Your task to perform on an android device: Open the stopwatch Image 0: 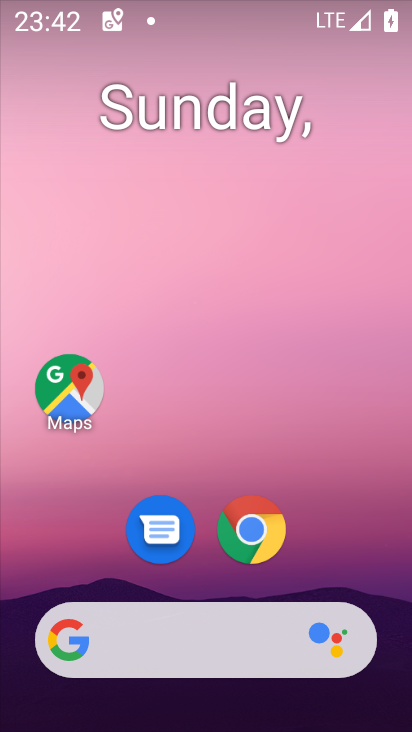
Step 0: drag from (350, 555) to (235, 180)
Your task to perform on an android device: Open the stopwatch Image 1: 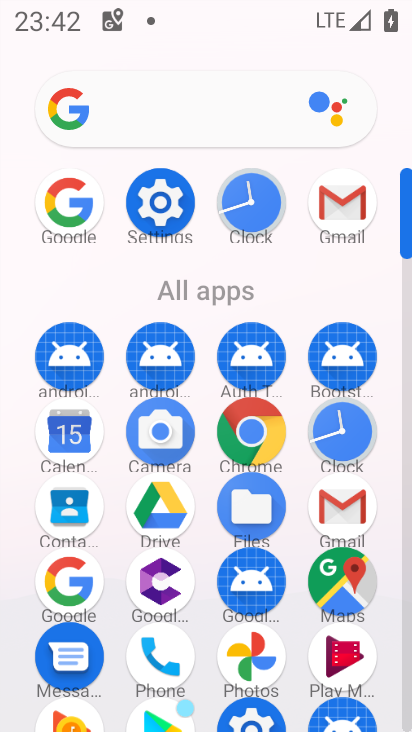
Step 1: click (254, 197)
Your task to perform on an android device: Open the stopwatch Image 2: 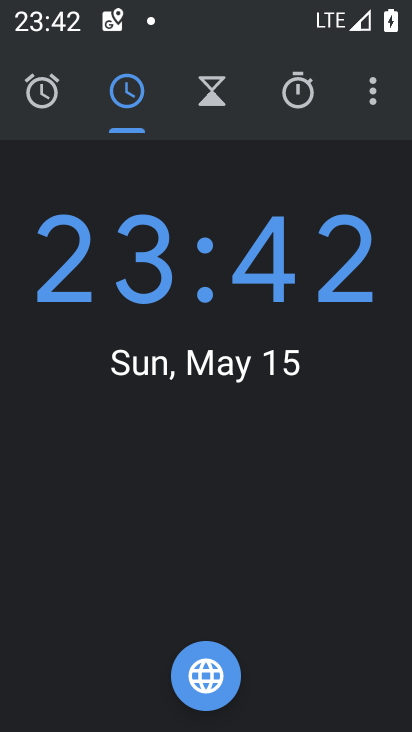
Step 2: click (306, 83)
Your task to perform on an android device: Open the stopwatch Image 3: 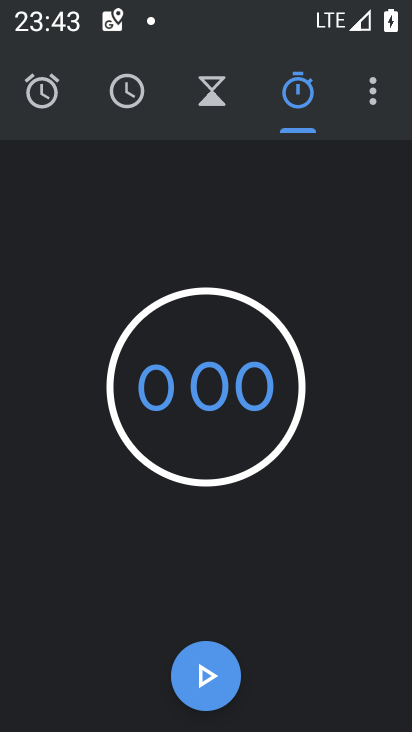
Step 3: task complete